Your task to perform on an android device: install app "The Home Depot" Image 0: 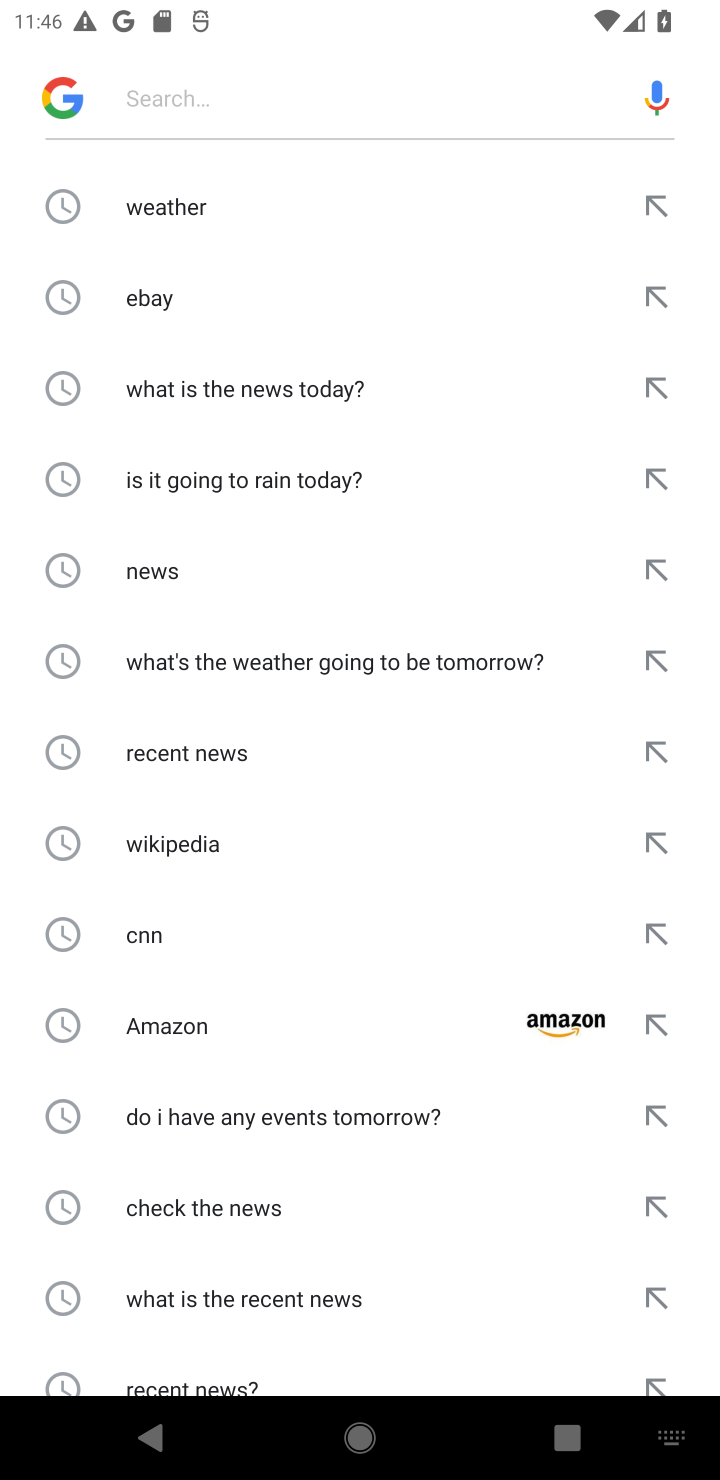
Step 0: press back button
Your task to perform on an android device: install app "The Home Depot" Image 1: 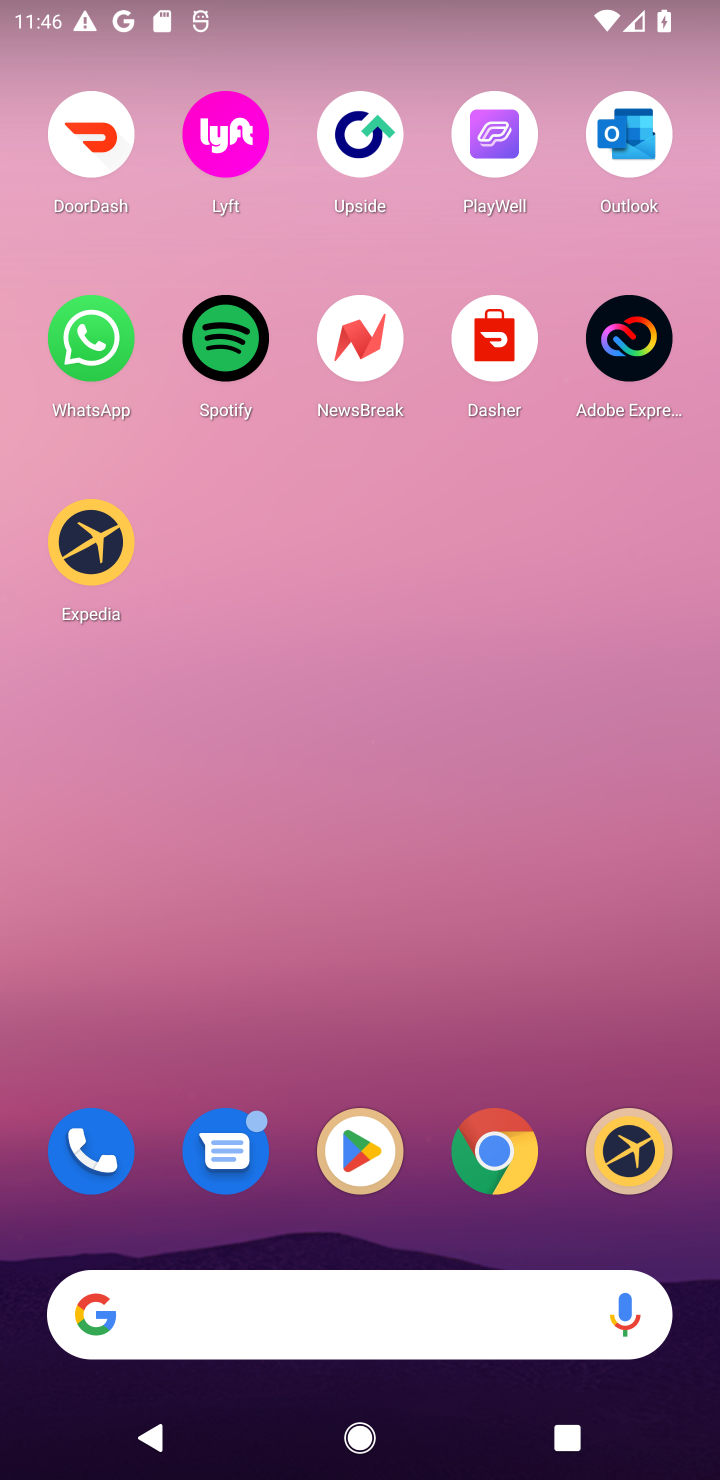
Step 1: click (375, 1129)
Your task to perform on an android device: install app "The Home Depot" Image 2: 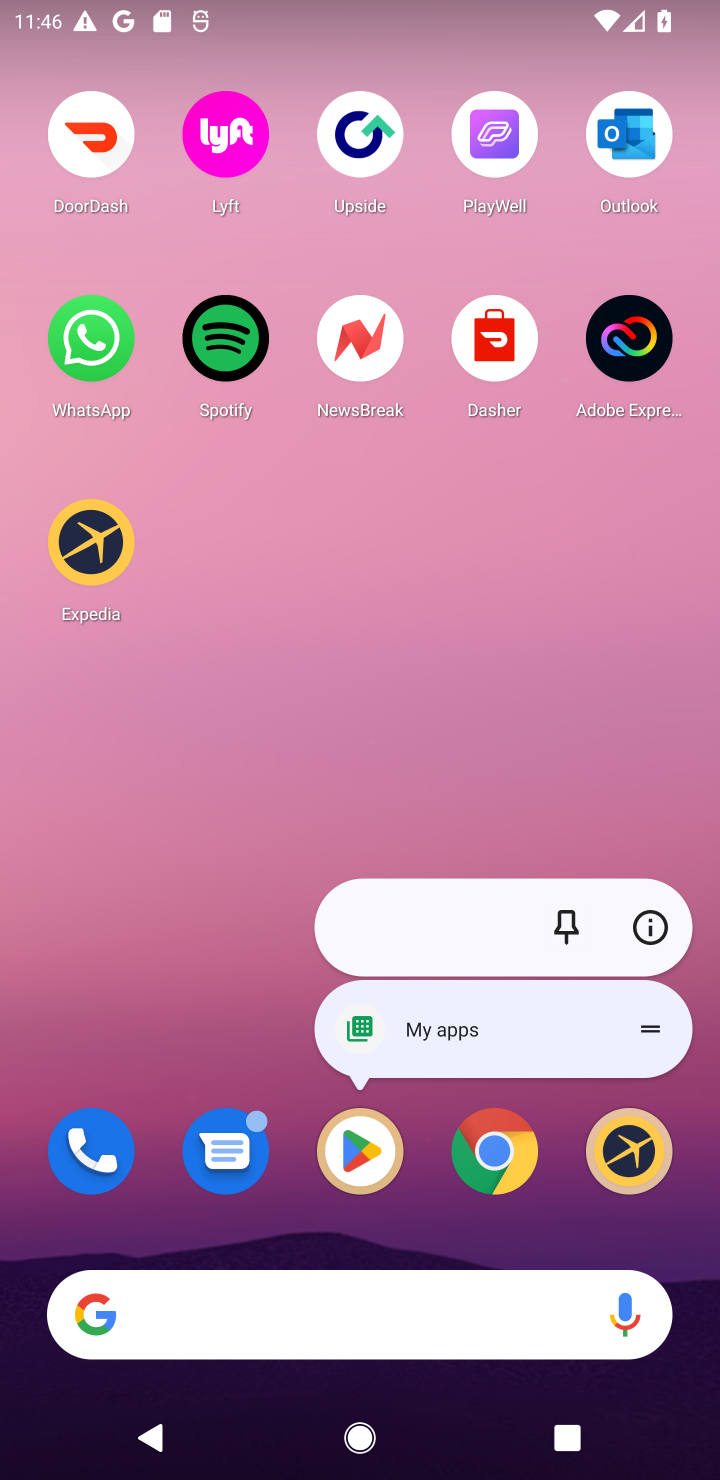
Step 2: click (375, 1129)
Your task to perform on an android device: install app "The Home Depot" Image 3: 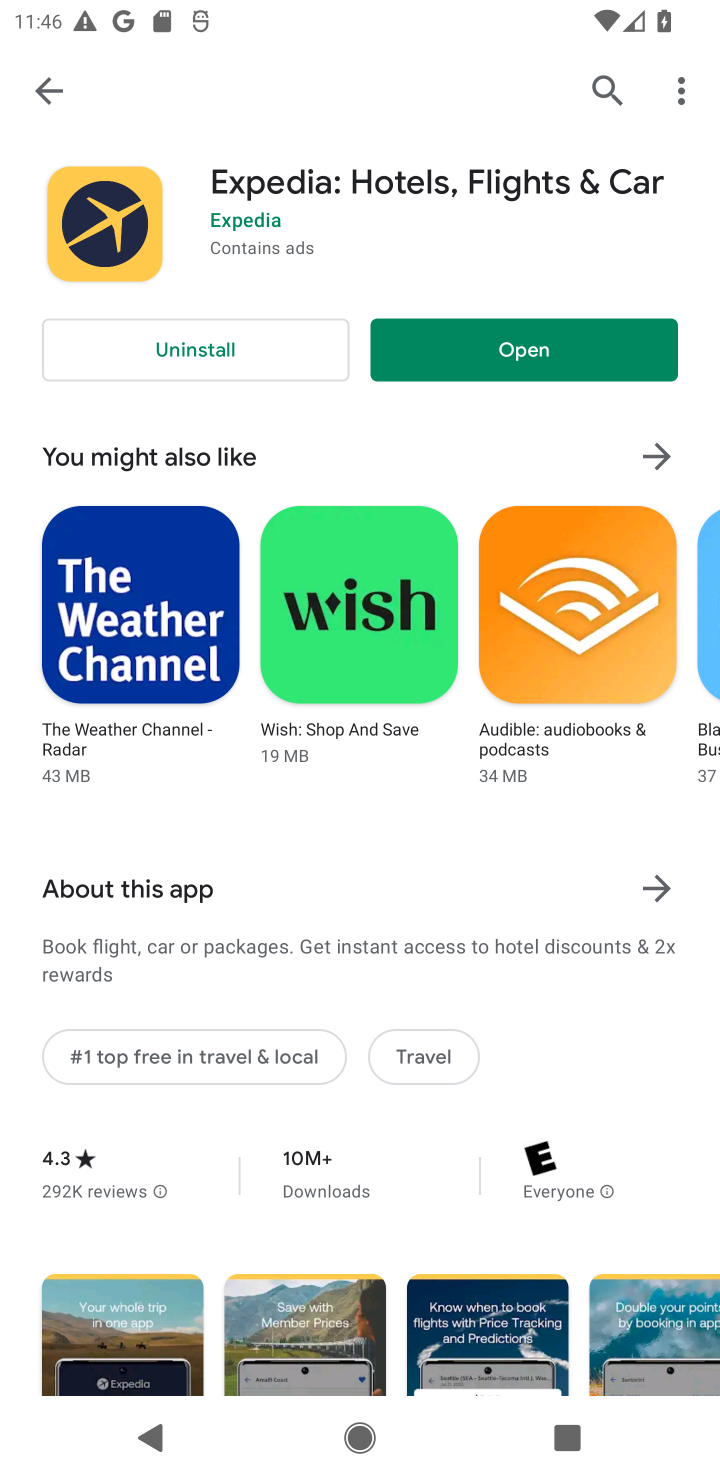
Step 3: click (611, 96)
Your task to perform on an android device: install app "The Home Depot" Image 4: 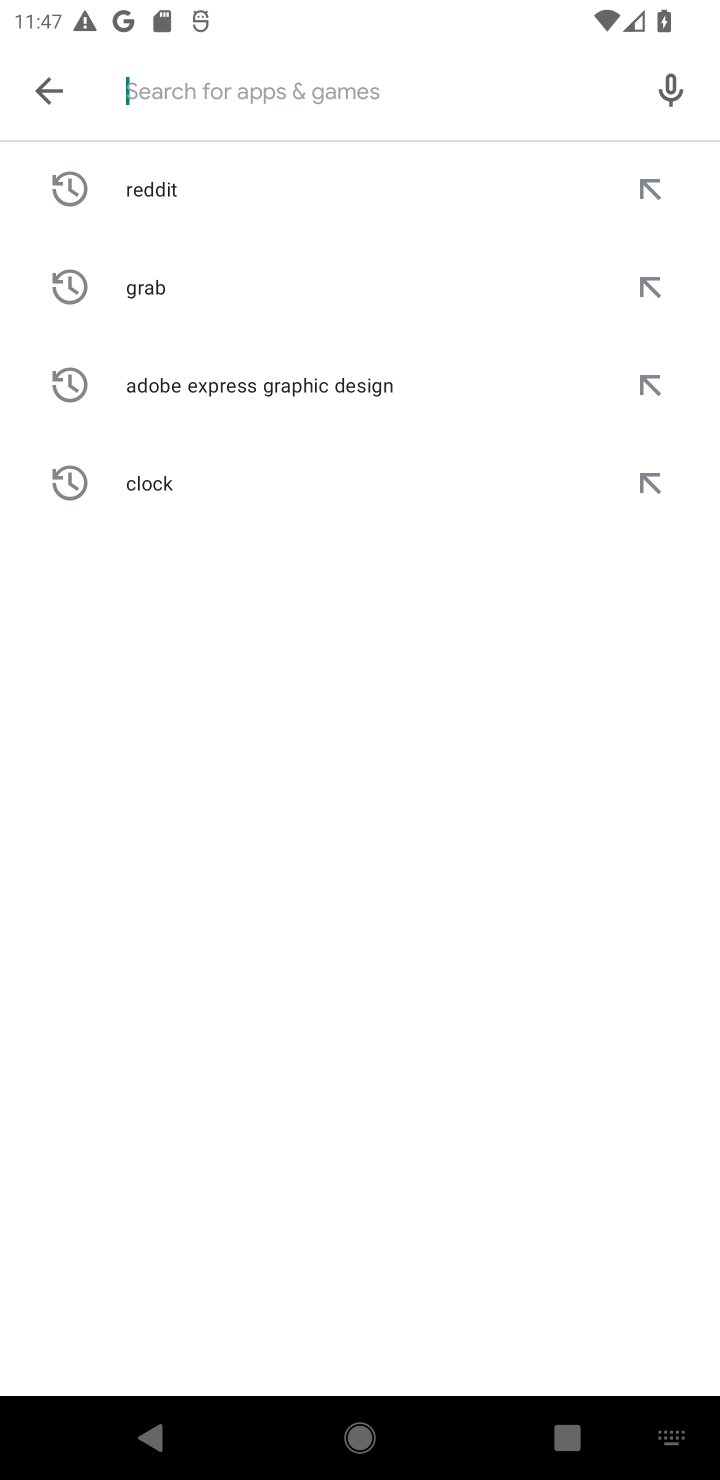
Step 4: type "The Home Depot"
Your task to perform on an android device: install app "The Home Depot" Image 5: 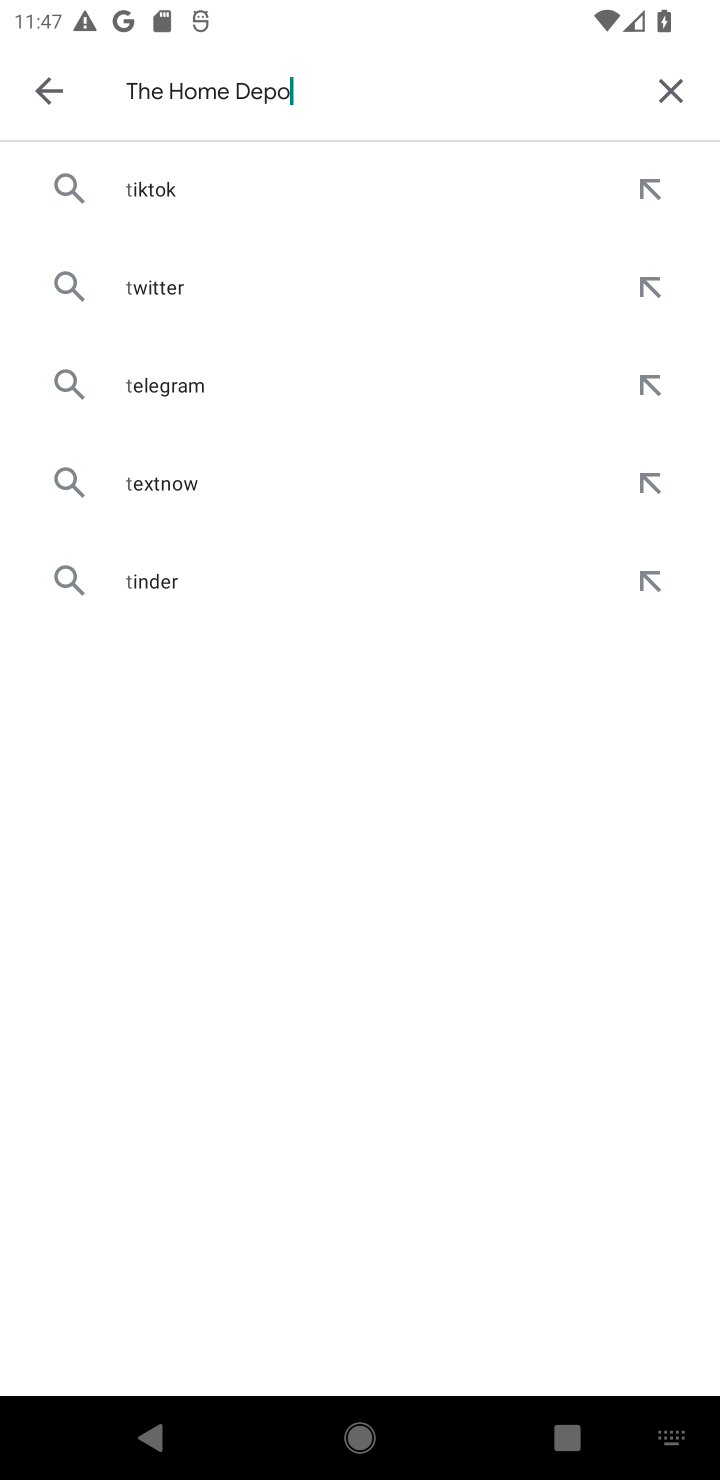
Step 5: type ""
Your task to perform on an android device: install app "The Home Depot" Image 6: 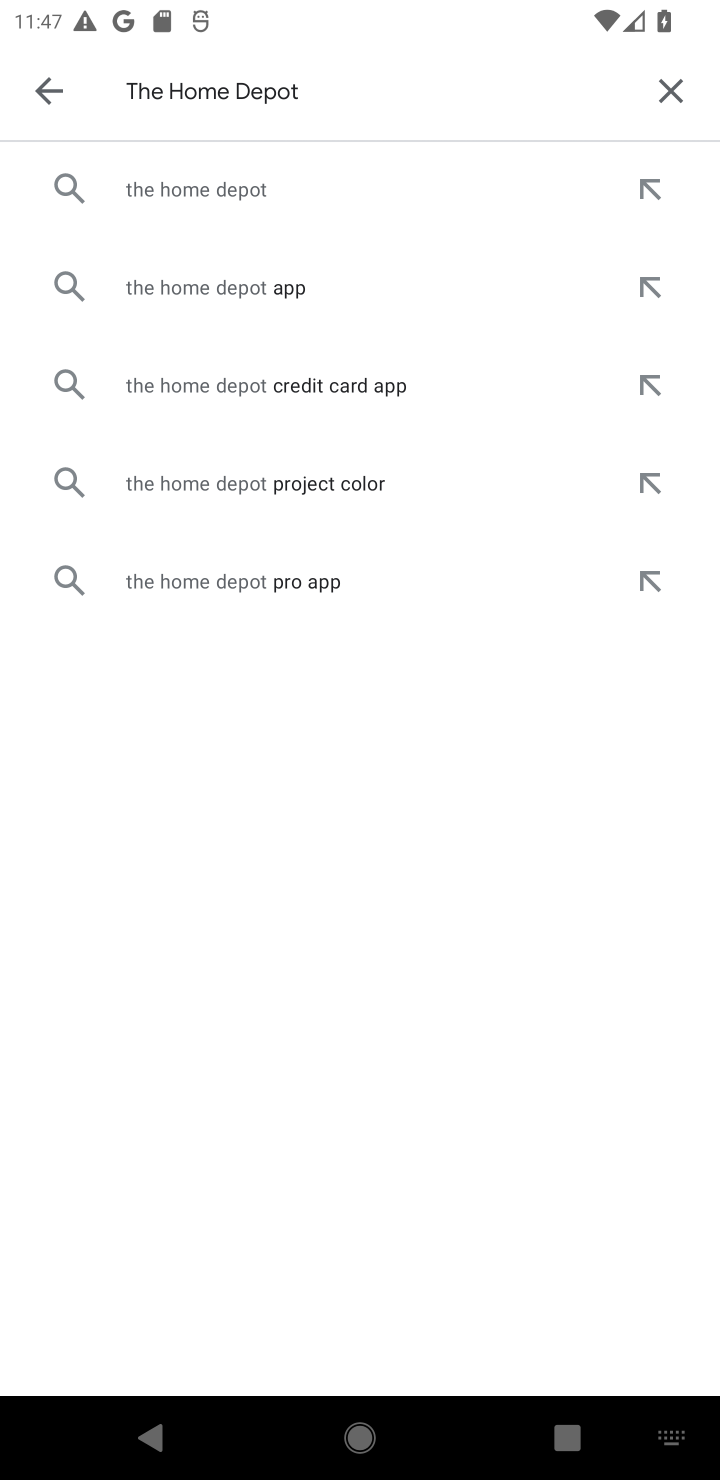
Step 6: click (249, 184)
Your task to perform on an android device: install app "The Home Depot" Image 7: 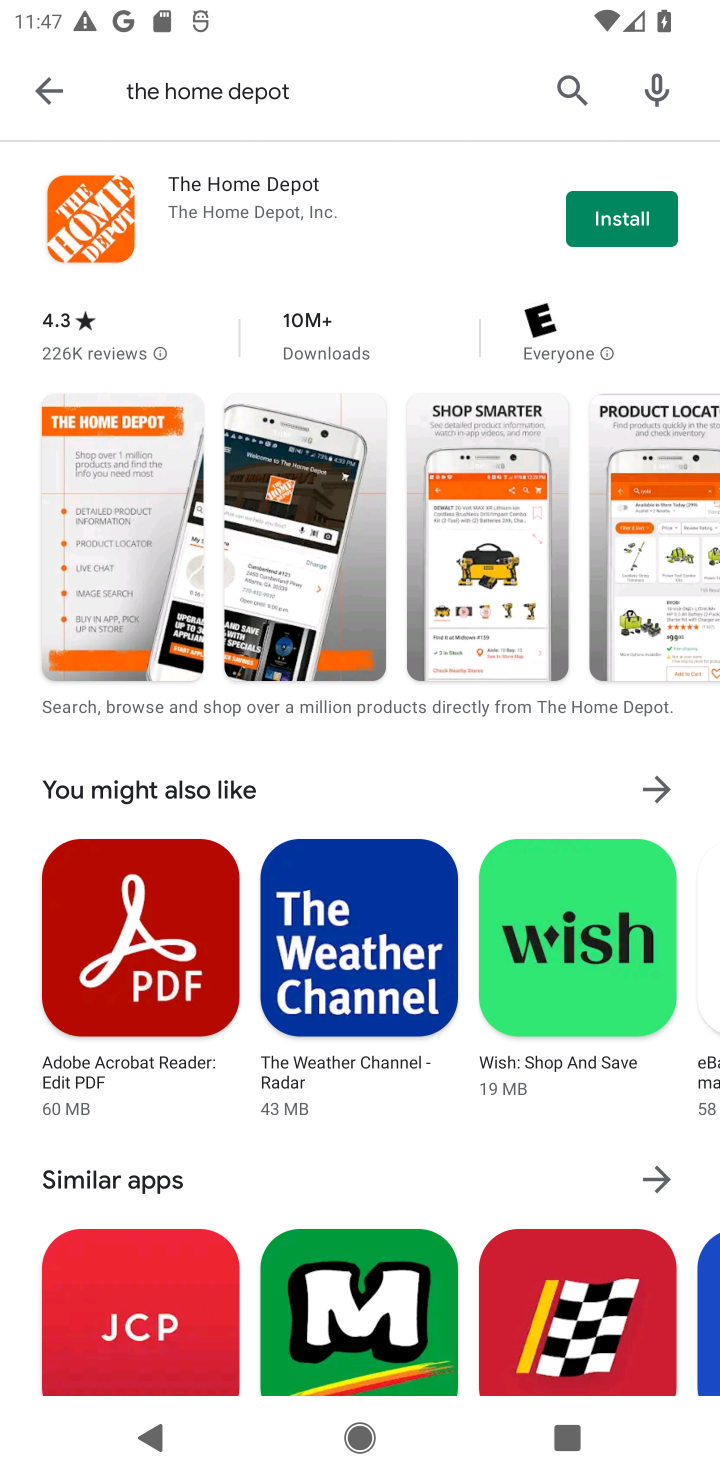
Step 7: click (633, 216)
Your task to perform on an android device: install app "The Home Depot" Image 8: 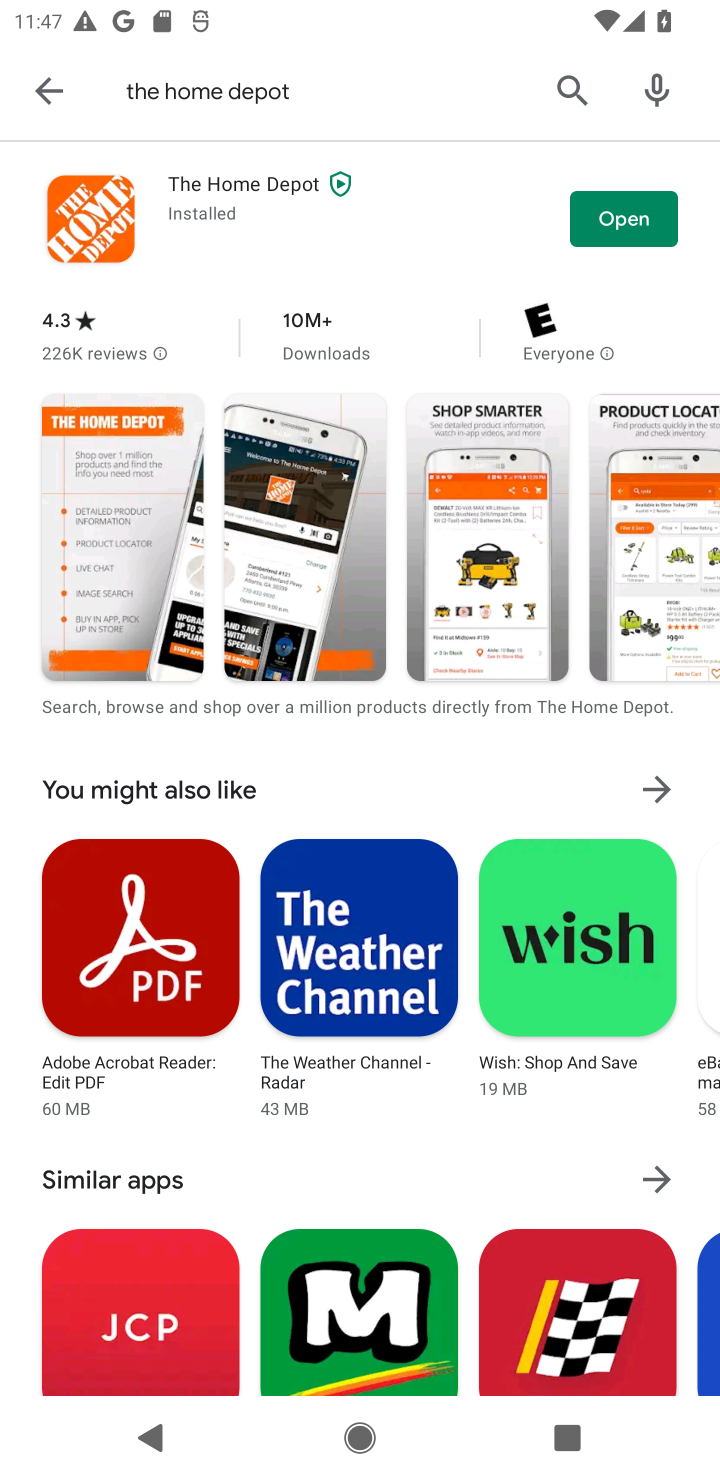
Step 8: task complete